Your task to perform on an android device: visit the assistant section in the google photos Image 0: 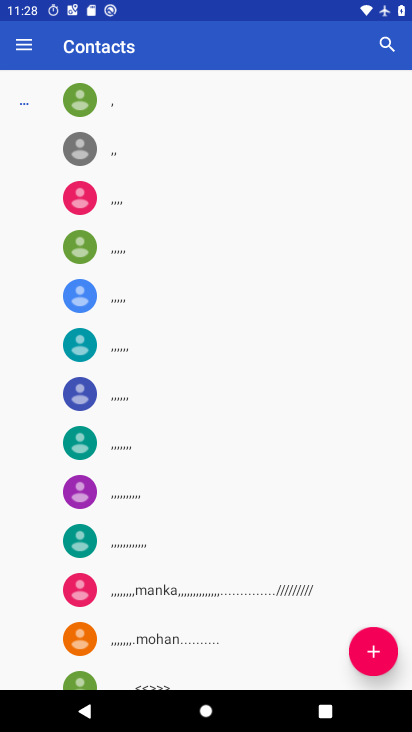
Step 0: press home button
Your task to perform on an android device: visit the assistant section in the google photos Image 1: 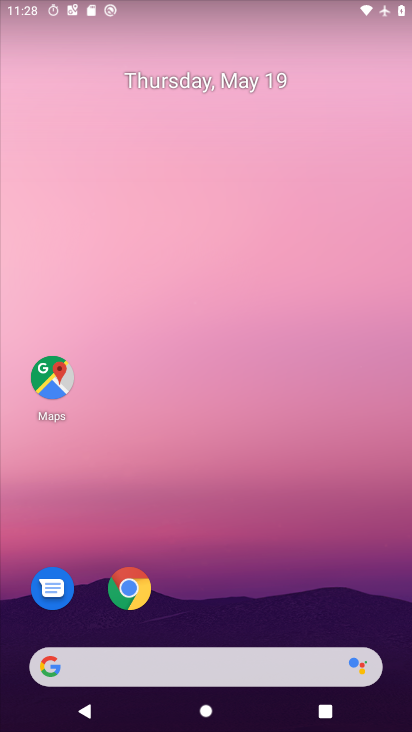
Step 1: drag from (152, 674) to (323, 161)
Your task to perform on an android device: visit the assistant section in the google photos Image 2: 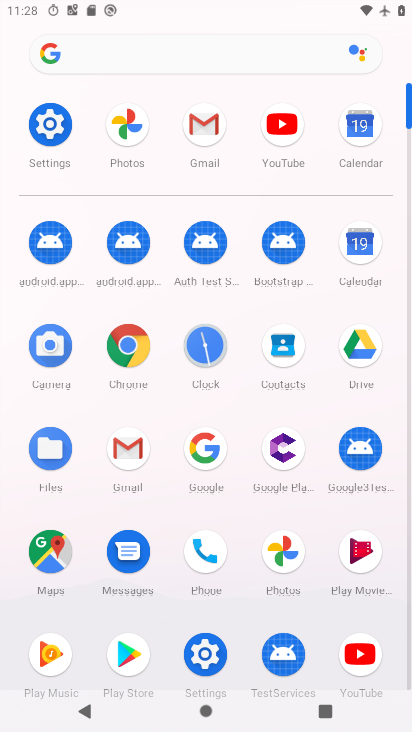
Step 2: click (291, 552)
Your task to perform on an android device: visit the assistant section in the google photos Image 3: 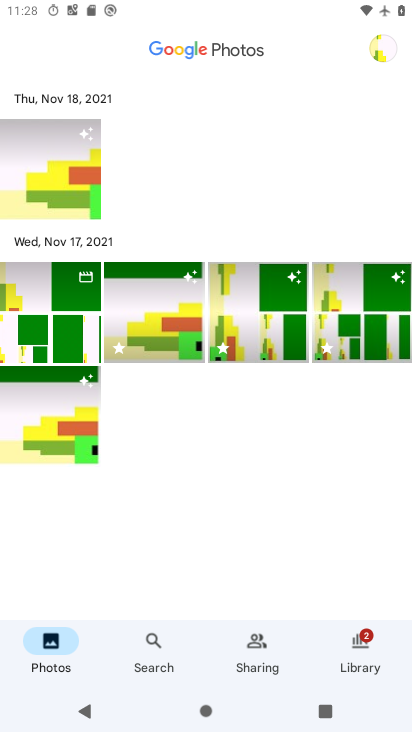
Step 3: click (156, 663)
Your task to perform on an android device: visit the assistant section in the google photos Image 4: 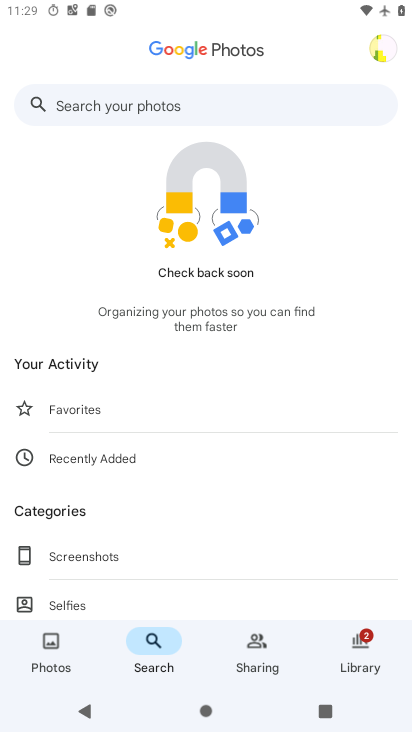
Step 4: task complete